Your task to perform on an android device: Show the shopping cart on walmart.com. Add "jbl charge 4" to the cart on walmart.com, then select checkout. Image 0: 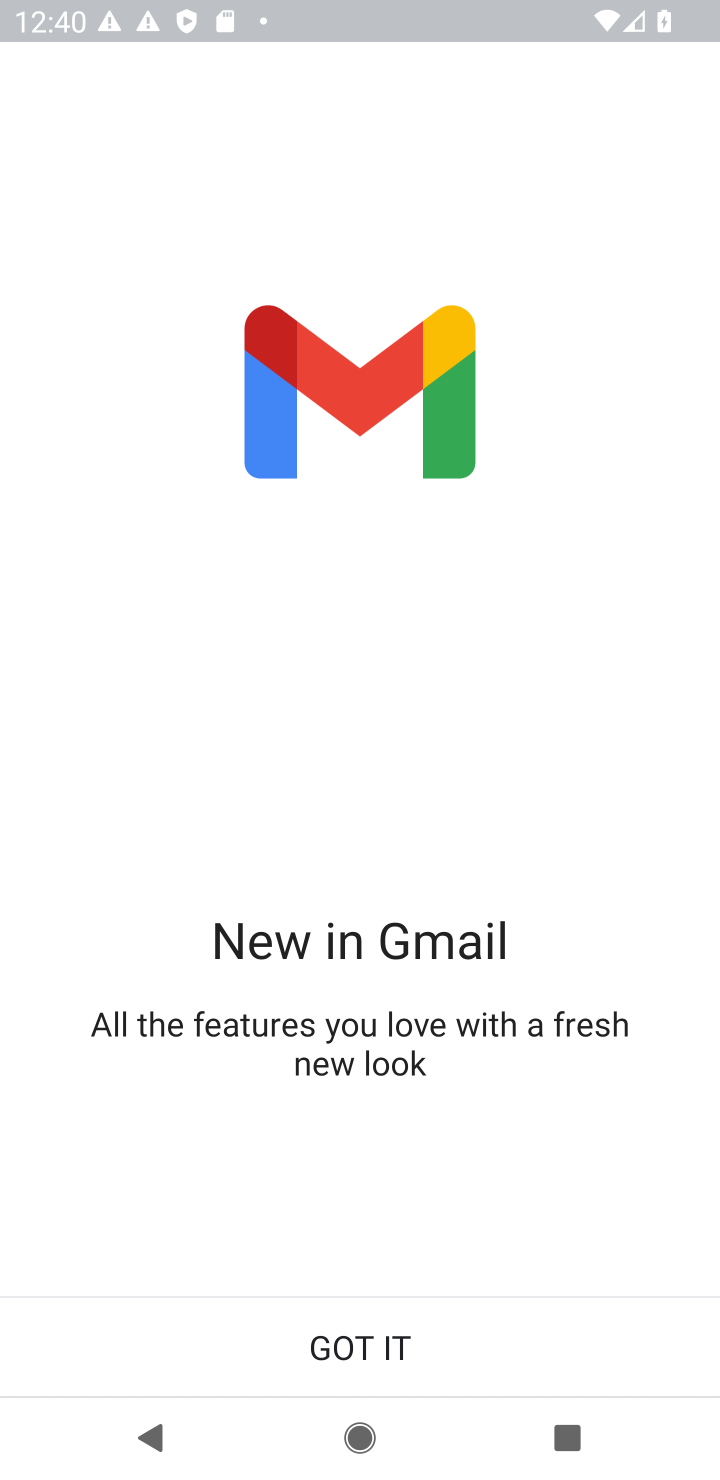
Step 0: press home button
Your task to perform on an android device: Show the shopping cart on walmart.com. Add "jbl charge 4" to the cart on walmart.com, then select checkout. Image 1: 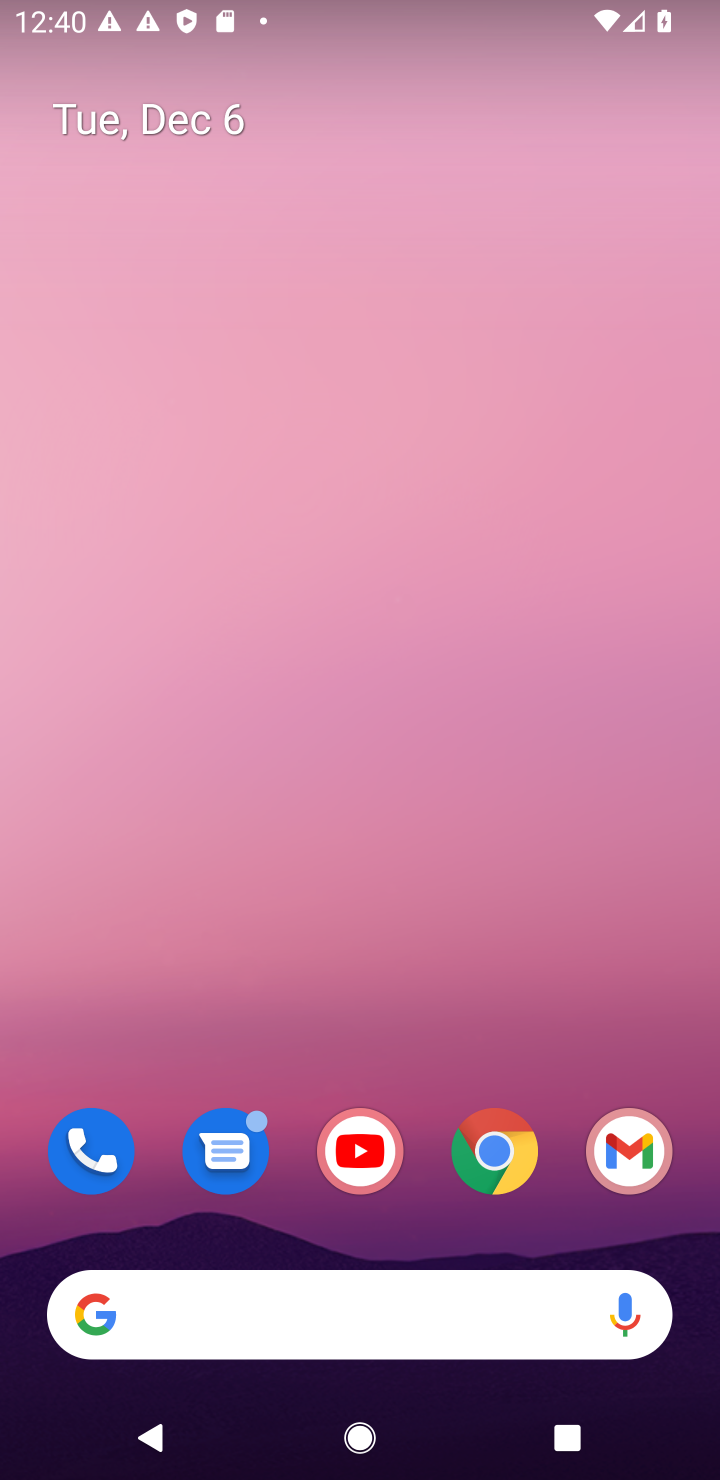
Step 1: click (494, 1160)
Your task to perform on an android device: Show the shopping cart on walmart.com. Add "jbl charge 4" to the cart on walmart.com, then select checkout. Image 2: 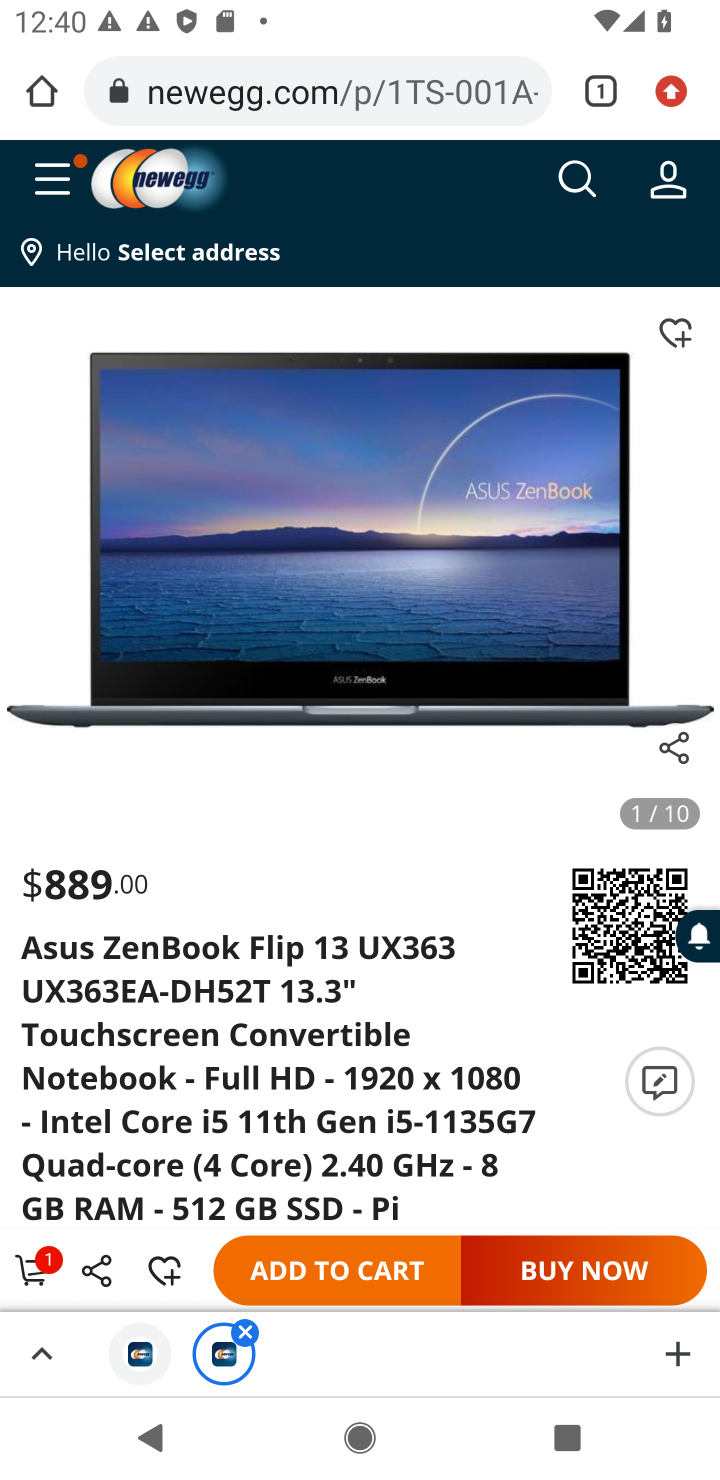
Step 2: click (330, 87)
Your task to perform on an android device: Show the shopping cart on walmart.com. Add "jbl charge 4" to the cart on walmart.com, then select checkout. Image 3: 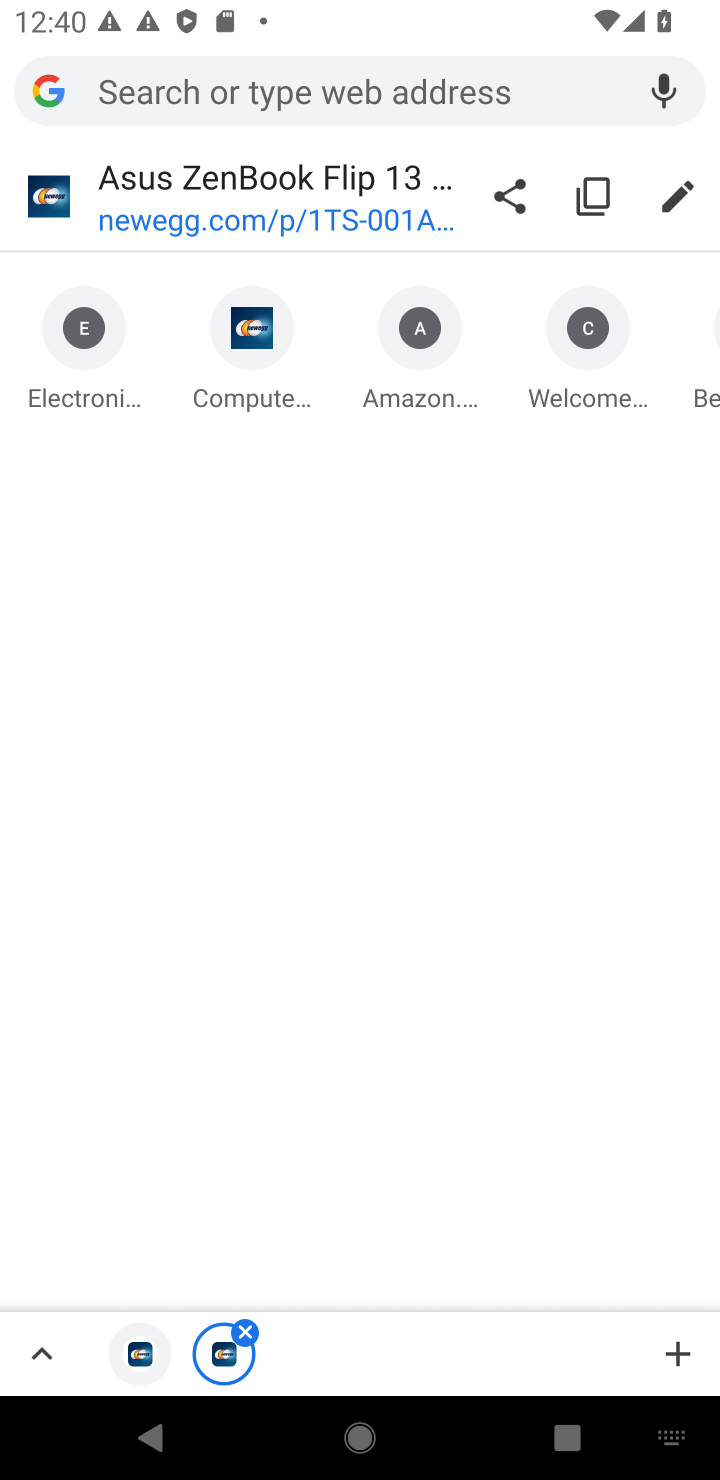
Step 3: type "walmart.com"
Your task to perform on an android device: Show the shopping cart on walmart.com. Add "jbl charge 4" to the cart on walmart.com, then select checkout. Image 4: 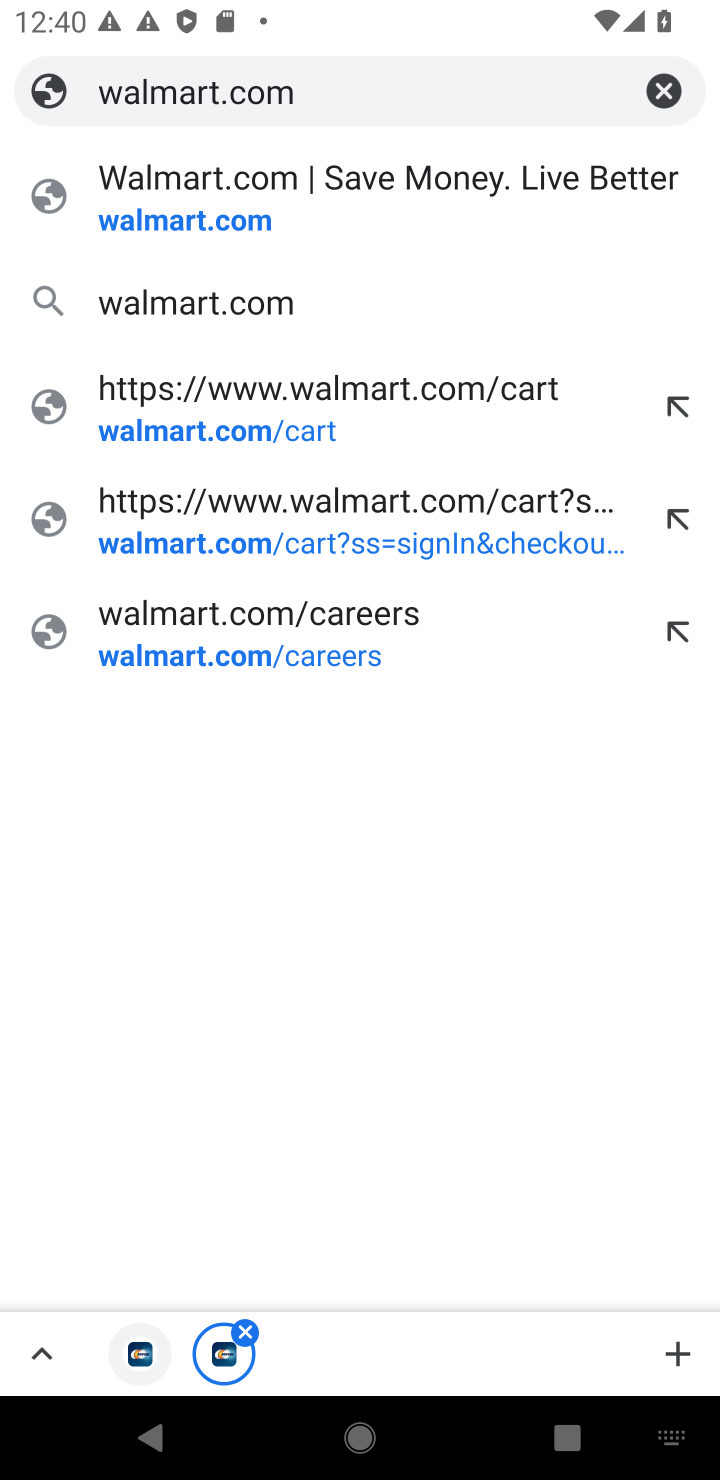
Step 4: click (178, 228)
Your task to perform on an android device: Show the shopping cart on walmart.com. Add "jbl charge 4" to the cart on walmart.com, then select checkout. Image 5: 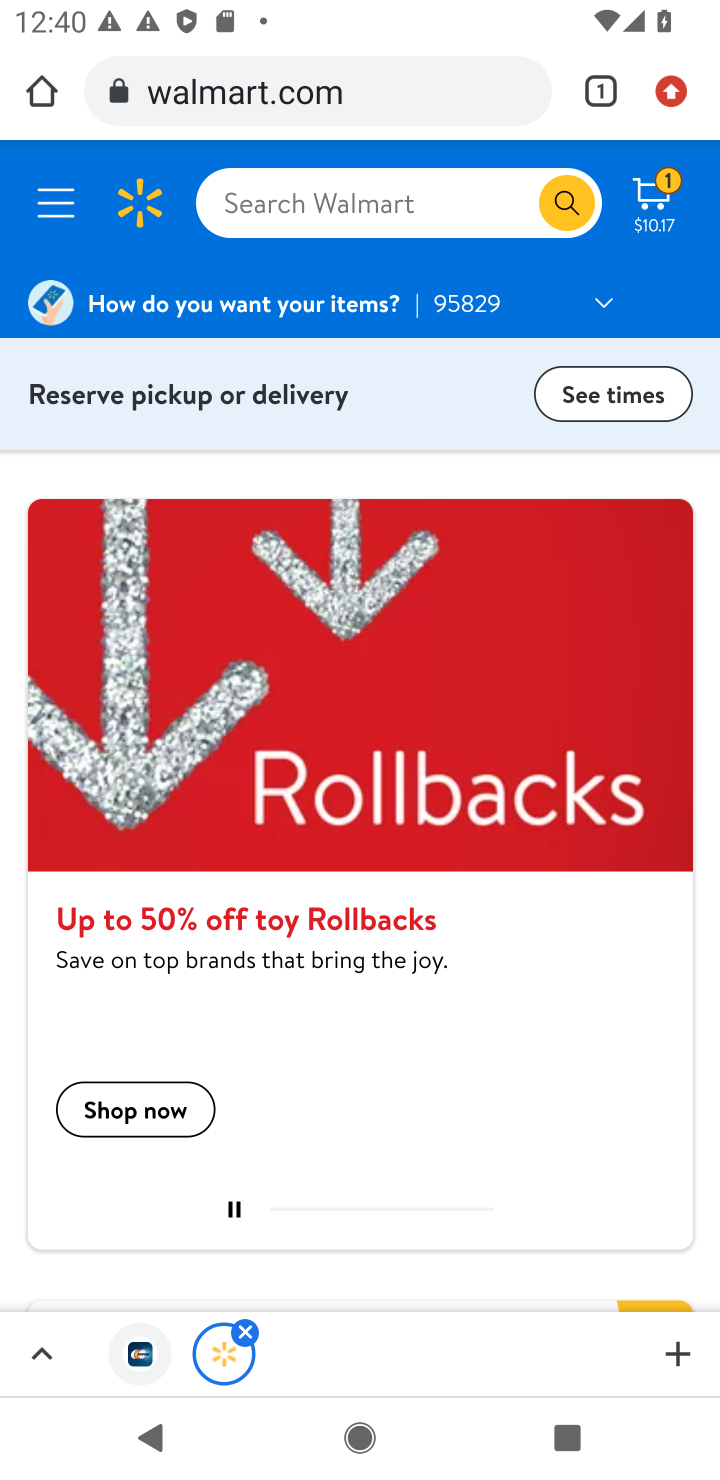
Step 5: click (643, 199)
Your task to perform on an android device: Show the shopping cart on walmart.com. Add "jbl charge 4" to the cart on walmart.com, then select checkout. Image 6: 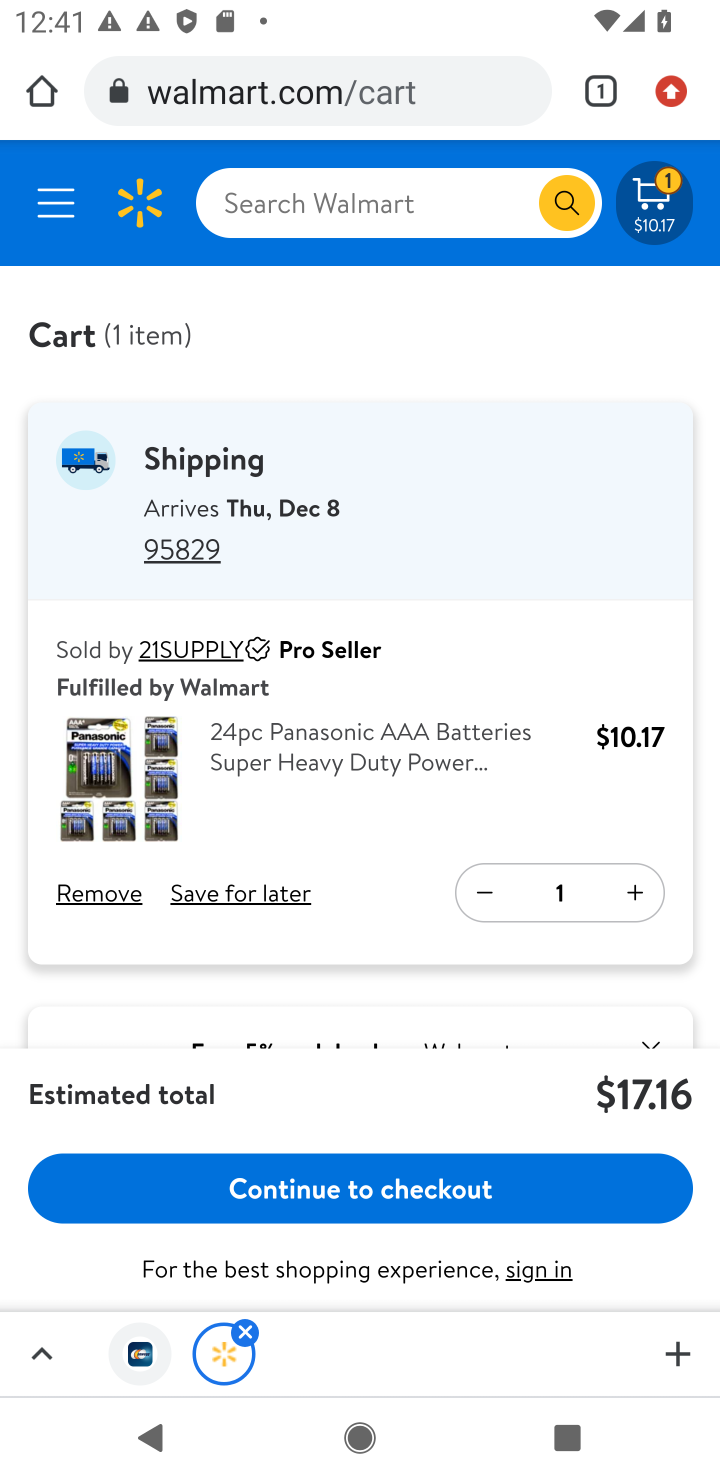
Step 6: click (301, 200)
Your task to perform on an android device: Show the shopping cart on walmart.com. Add "jbl charge 4" to the cart on walmart.com, then select checkout. Image 7: 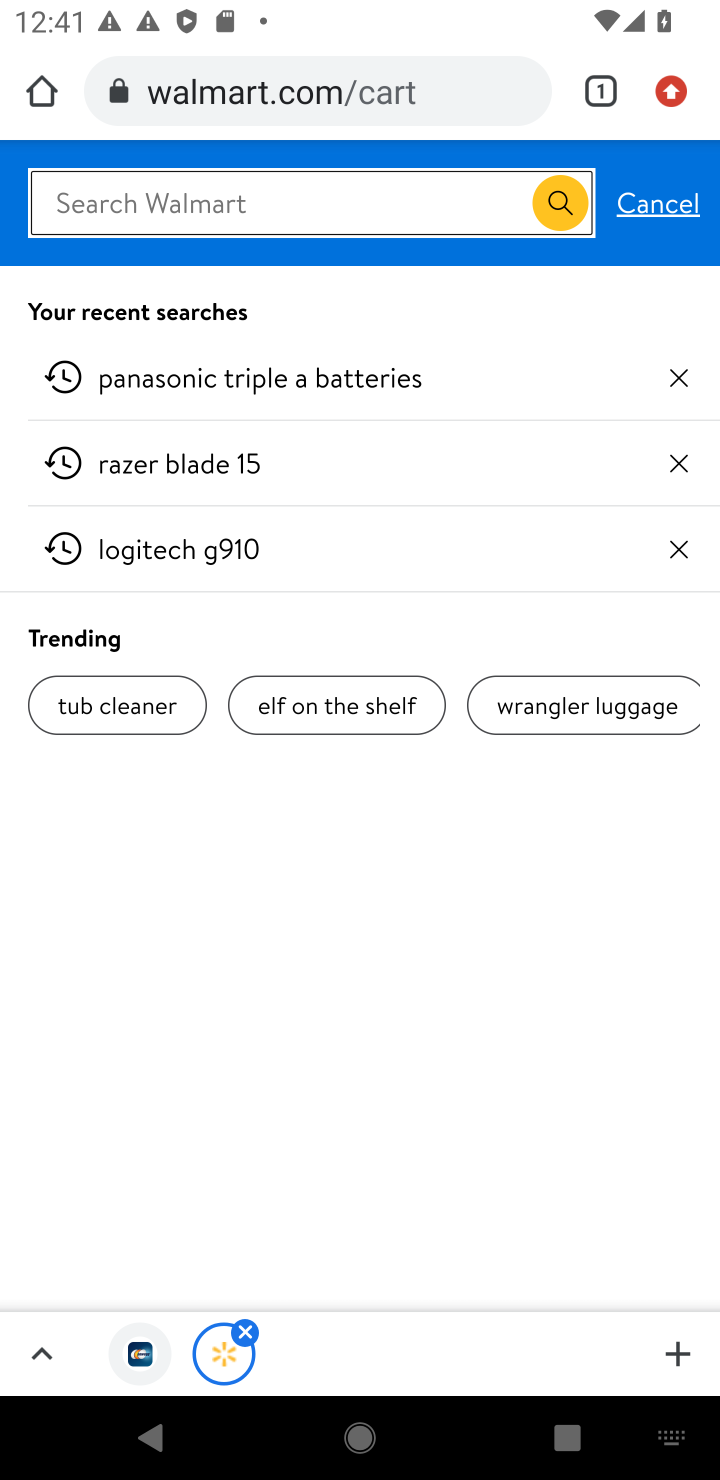
Step 7: type "jbl charge 4"
Your task to perform on an android device: Show the shopping cart on walmart.com. Add "jbl charge 4" to the cart on walmart.com, then select checkout. Image 8: 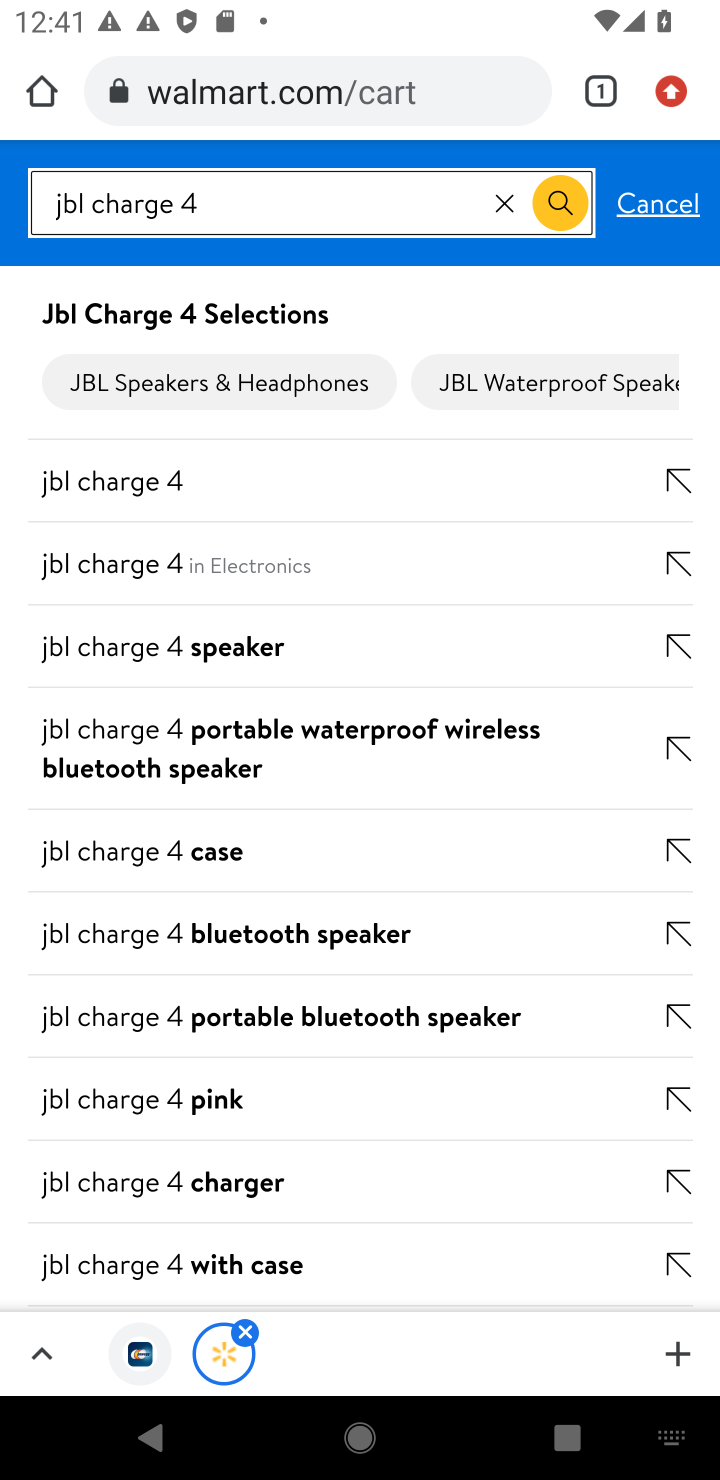
Step 8: click (124, 493)
Your task to perform on an android device: Show the shopping cart on walmart.com. Add "jbl charge 4" to the cart on walmart.com, then select checkout. Image 9: 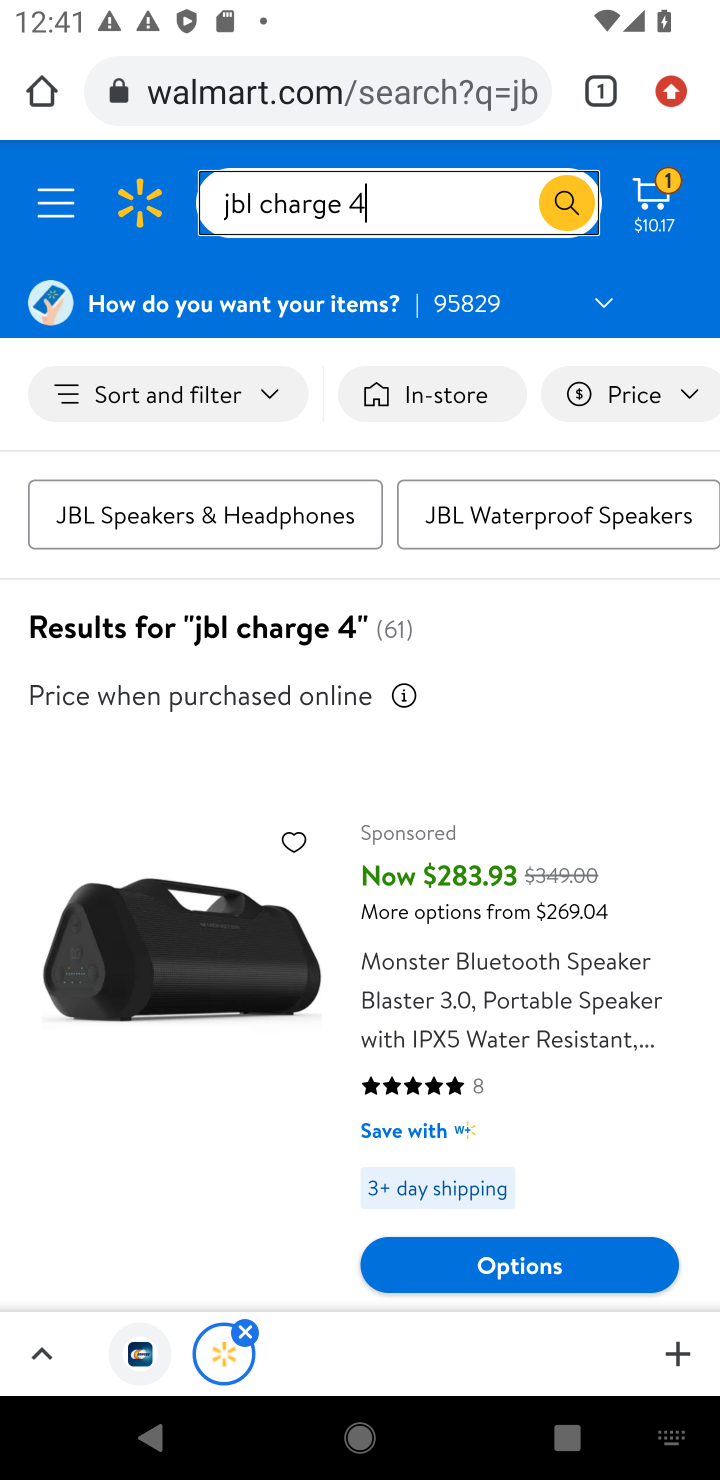
Step 9: drag from (267, 981) to (244, 534)
Your task to perform on an android device: Show the shopping cart on walmart.com. Add "jbl charge 4" to the cart on walmart.com, then select checkout. Image 10: 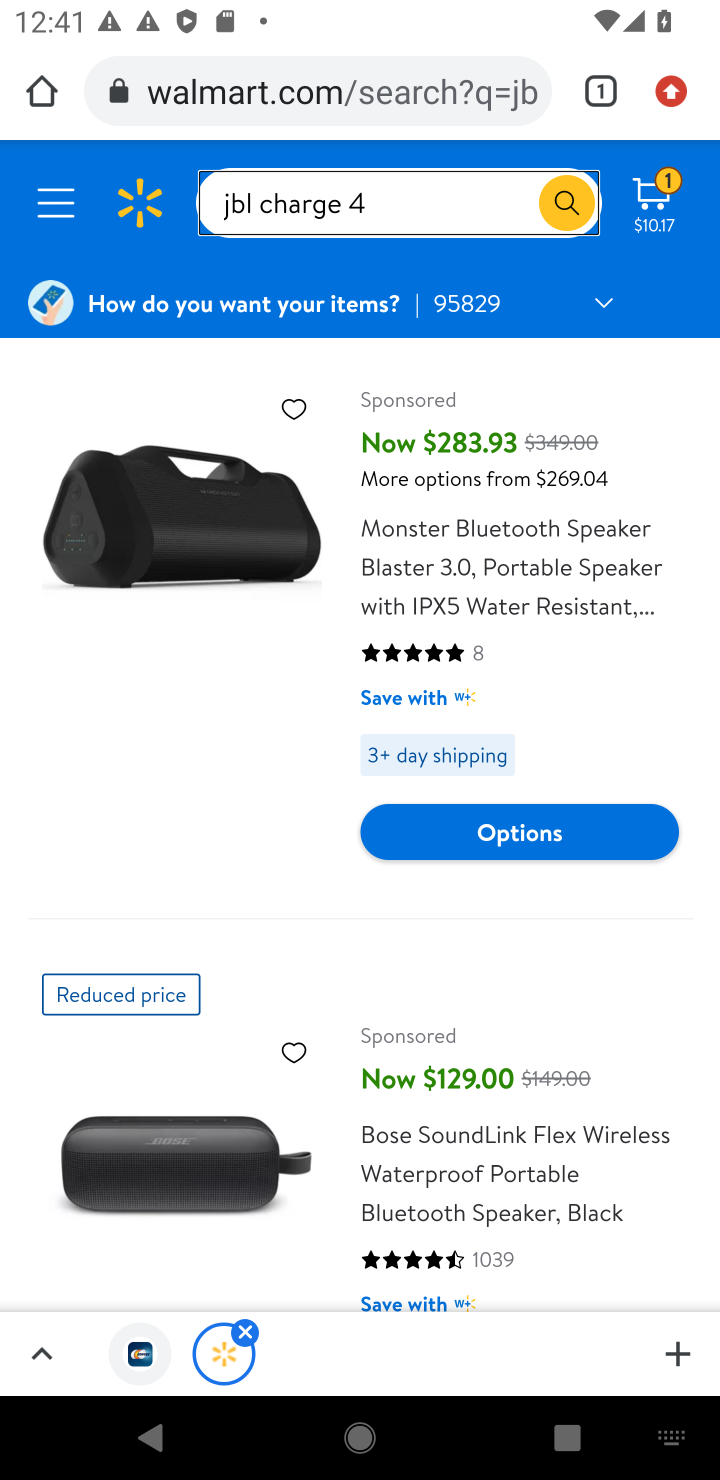
Step 10: drag from (240, 1142) to (235, 508)
Your task to perform on an android device: Show the shopping cart on walmart.com. Add "jbl charge 4" to the cart on walmart.com, then select checkout. Image 11: 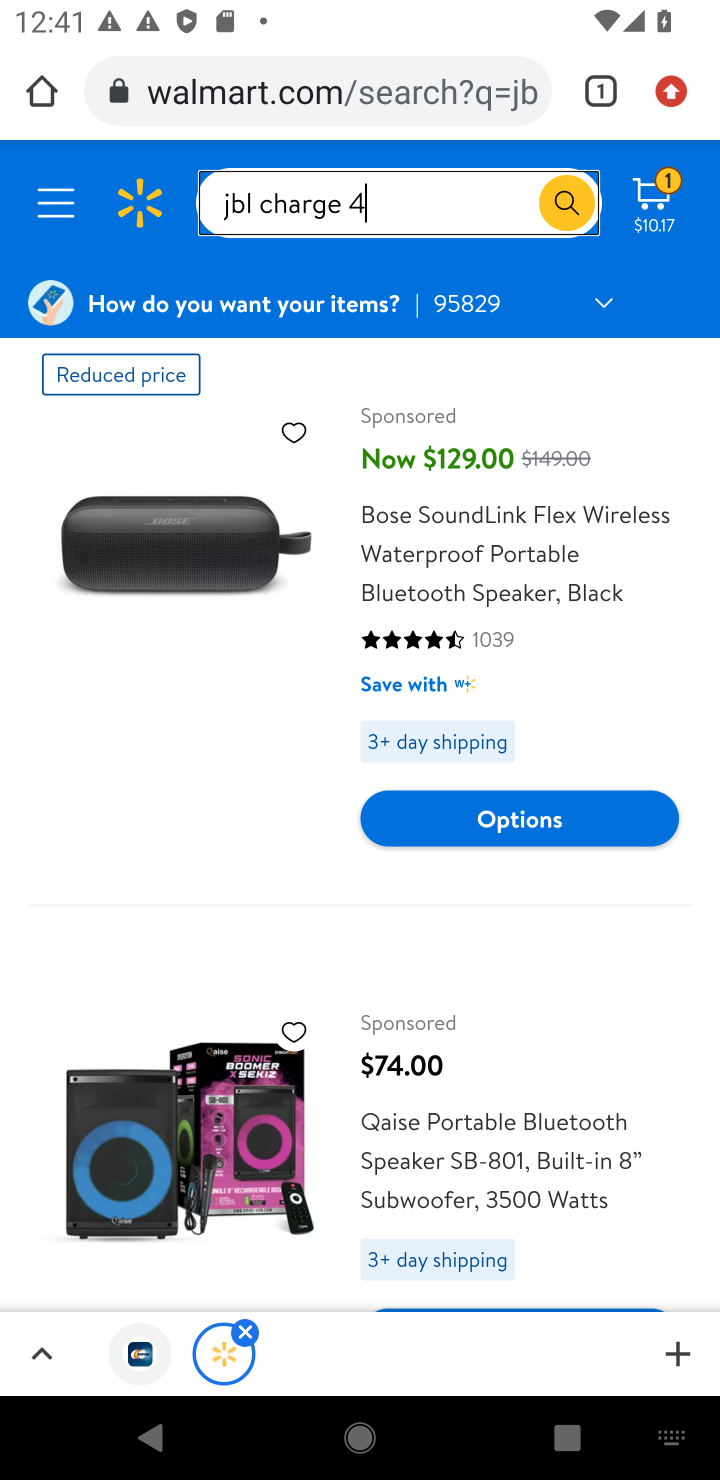
Step 11: drag from (226, 1107) to (206, 496)
Your task to perform on an android device: Show the shopping cart on walmart.com. Add "jbl charge 4" to the cart on walmart.com, then select checkout. Image 12: 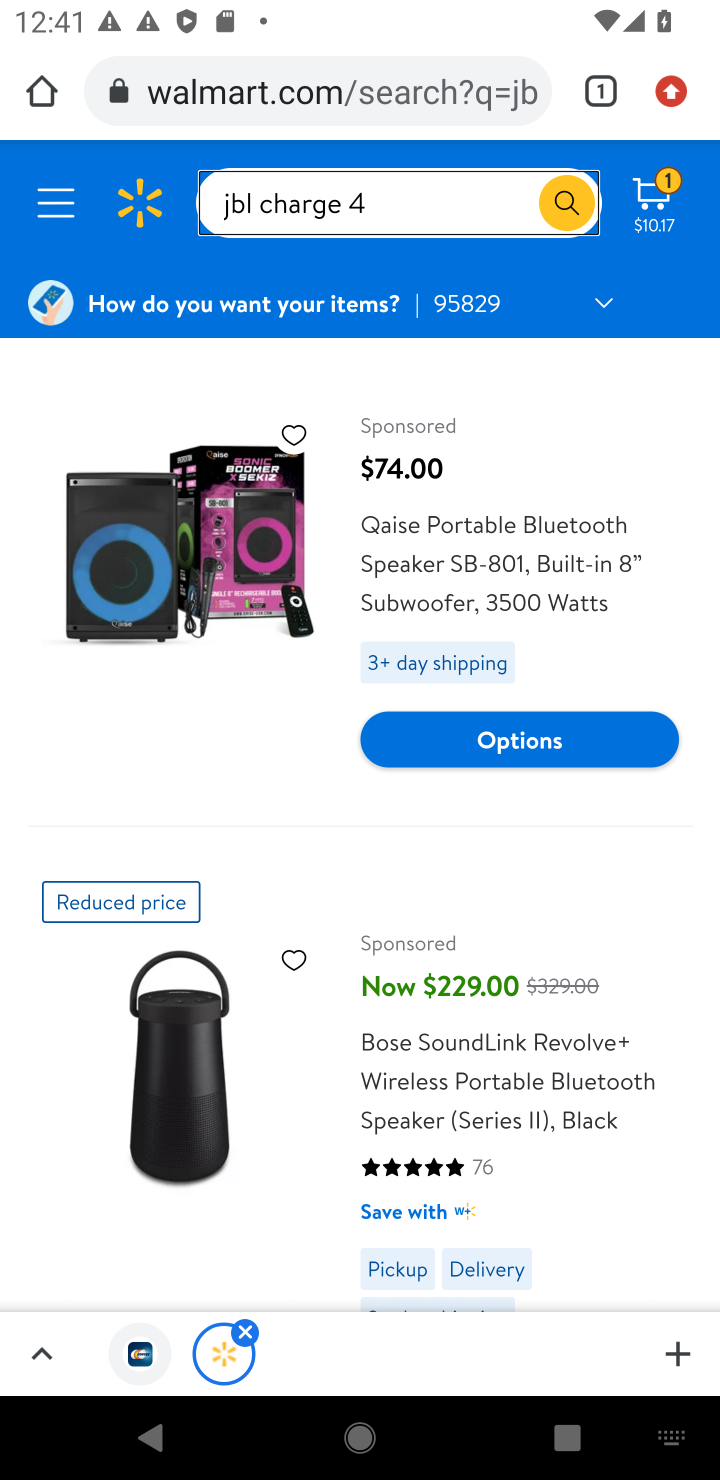
Step 12: drag from (212, 978) to (201, 567)
Your task to perform on an android device: Show the shopping cart on walmart.com. Add "jbl charge 4" to the cart on walmart.com, then select checkout. Image 13: 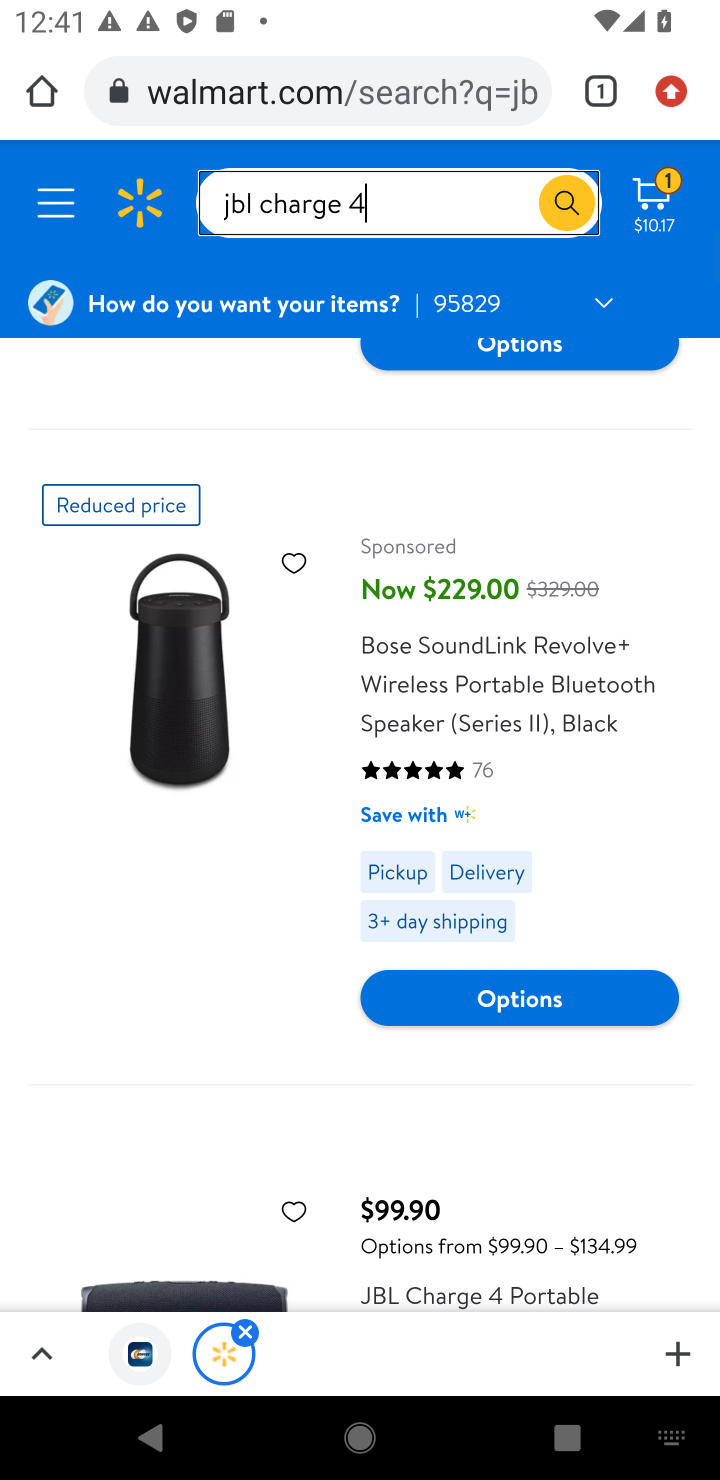
Step 13: drag from (261, 955) to (217, 566)
Your task to perform on an android device: Show the shopping cart on walmart.com. Add "jbl charge 4" to the cart on walmart.com, then select checkout. Image 14: 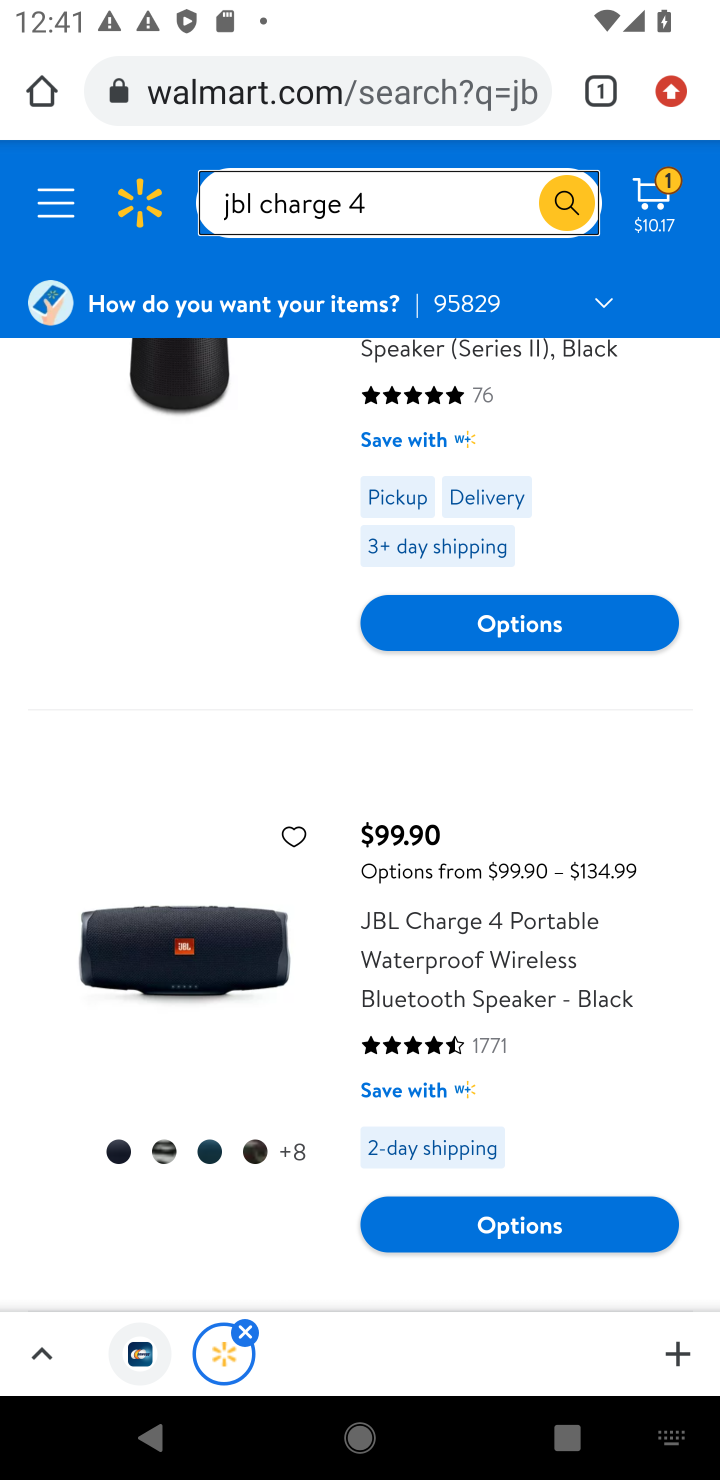
Step 14: click (412, 995)
Your task to perform on an android device: Show the shopping cart on walmart.com. Add "jbl charge 4" to the cart on walmart.com, then select checkout. Image 15: 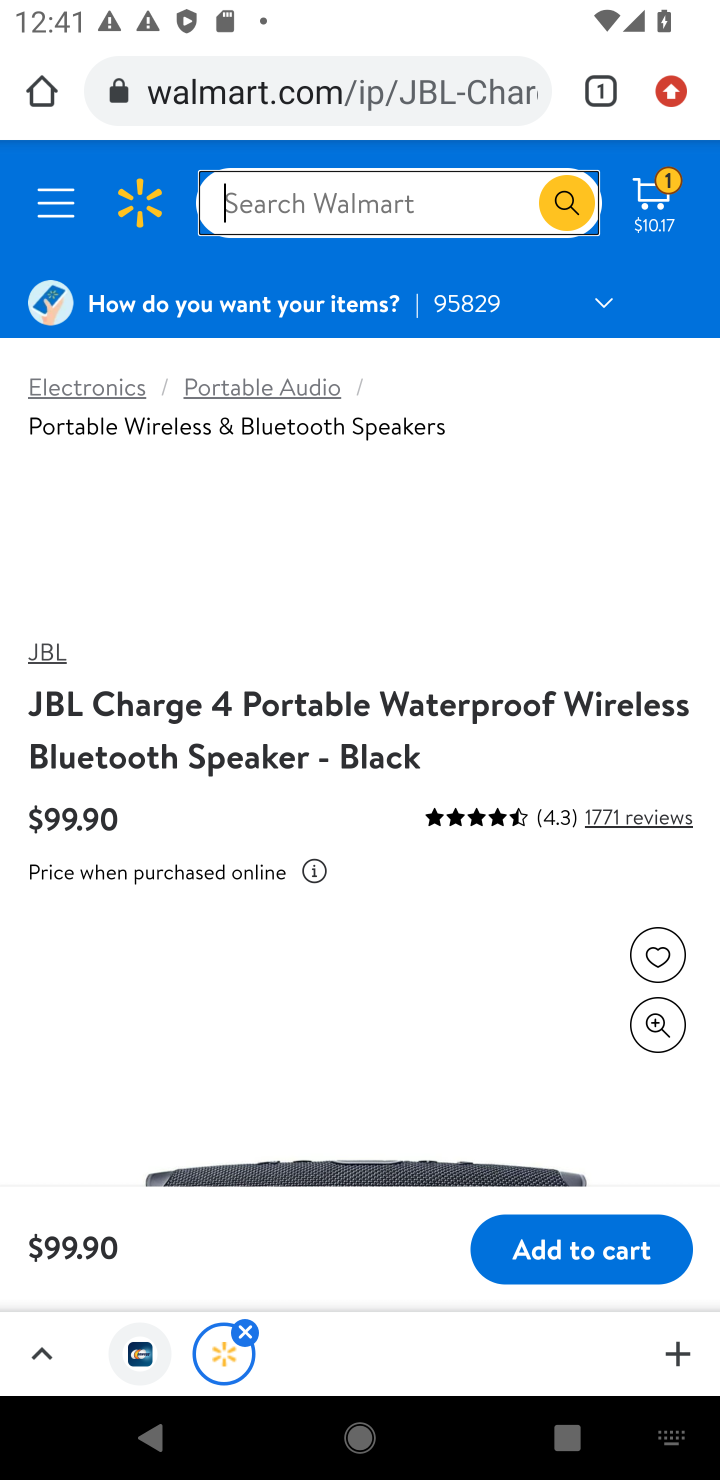
Step 15: click (514, 1252)
Your task to perform on an android device: Show the shopping cart on walmart.com. Add "jbl charge 4" to the cart on walmart.com, then select checkout. Image 16: 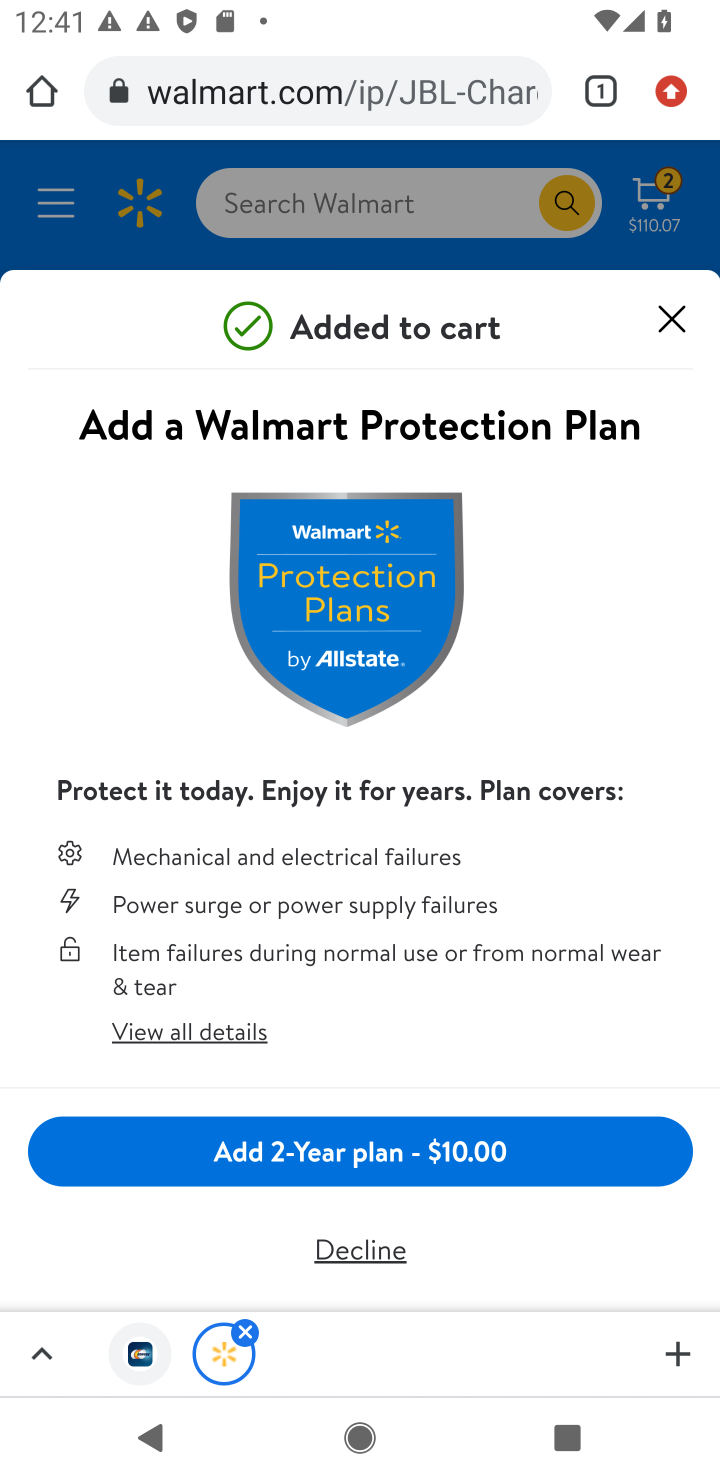
Step 16: click (667, 335)
Your task to perform on an android device: Show the shopping cart on walmart.com. Add "jbl charge 4" to the cart on walmart.com, then select checkout. Image 17: 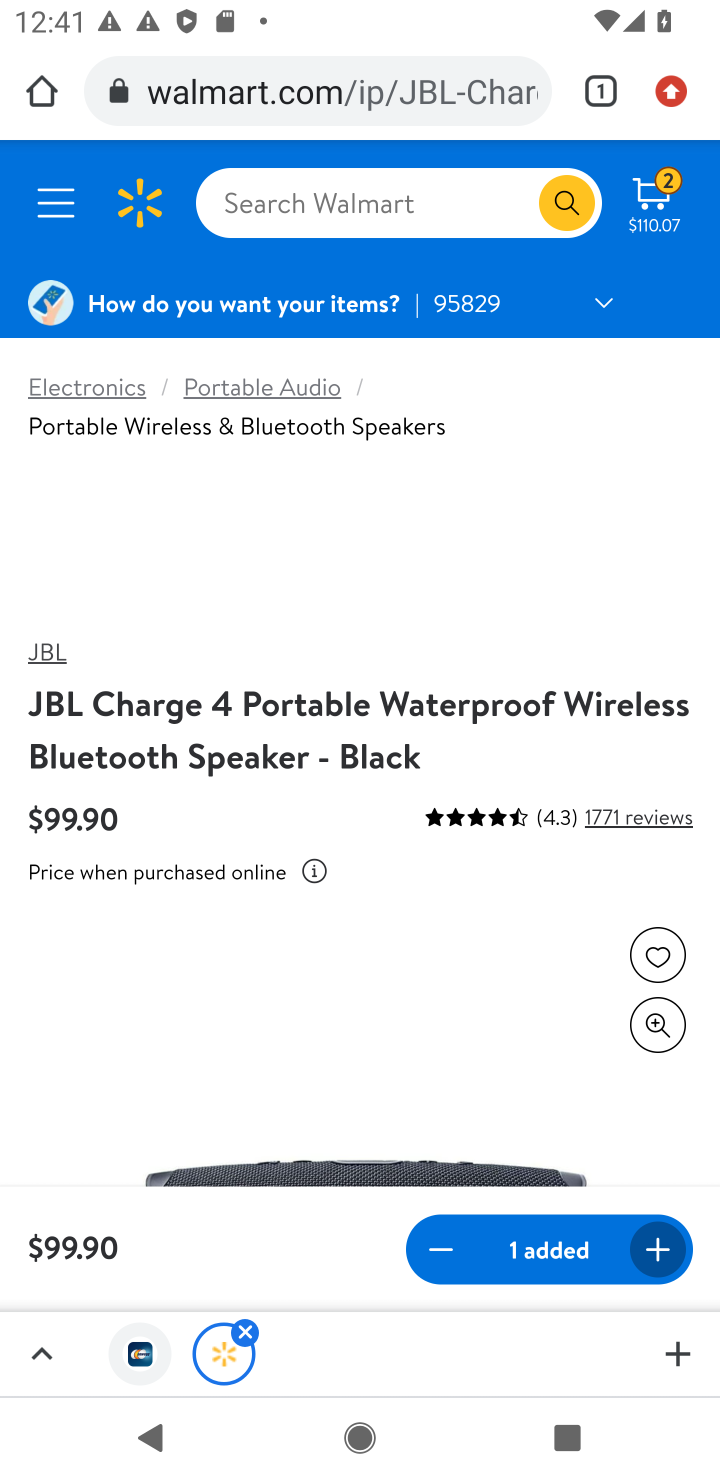
Step 17: click (663, 200)
Your task to perform on an android device: Show the shopping cart on walmart.com. Add "jbl charge 4" to the cart on walmart.com, then select checkout. Image 18: 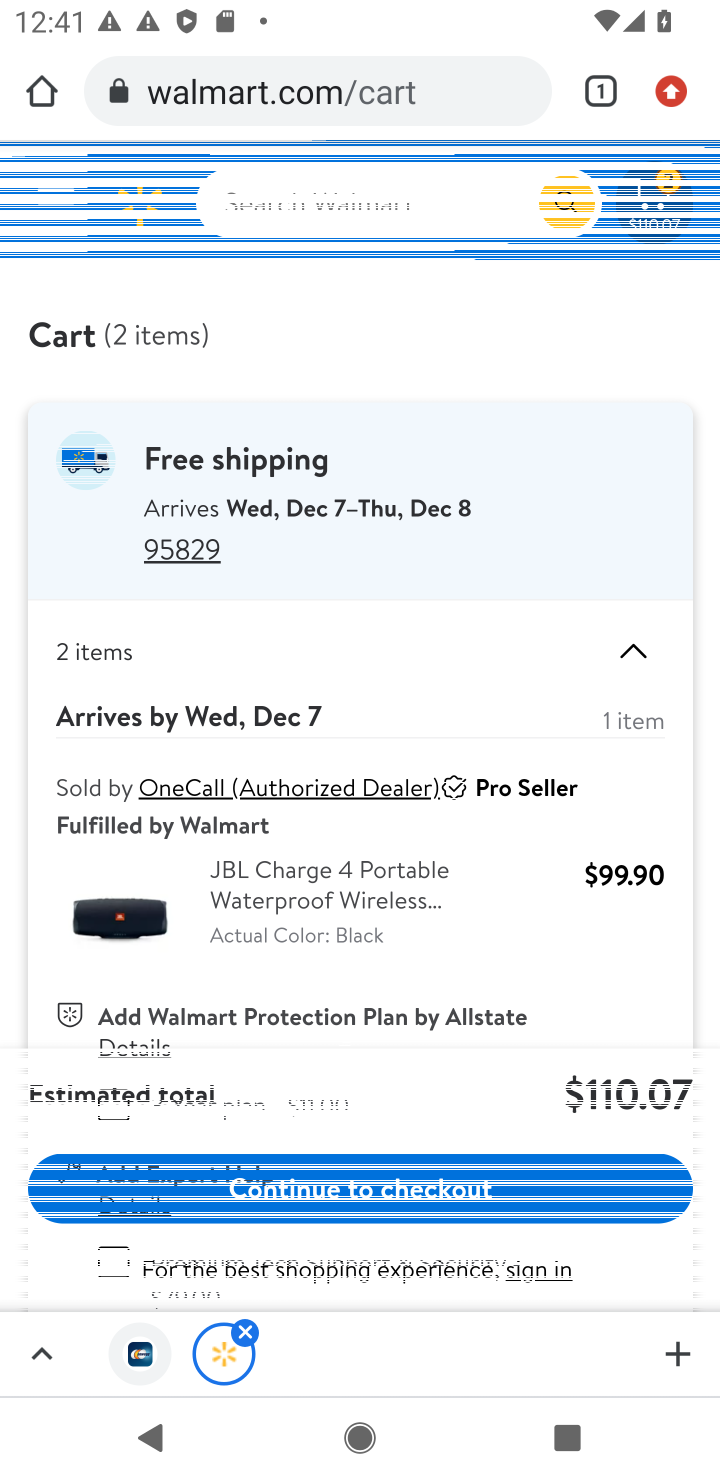
Step 18: click (341, 1195)
Your task to perform on an android device: Show the shopping cart on walmart.com. Add "jbl charge 4" to the cart on walmart.com, then select checkout. Image 19: 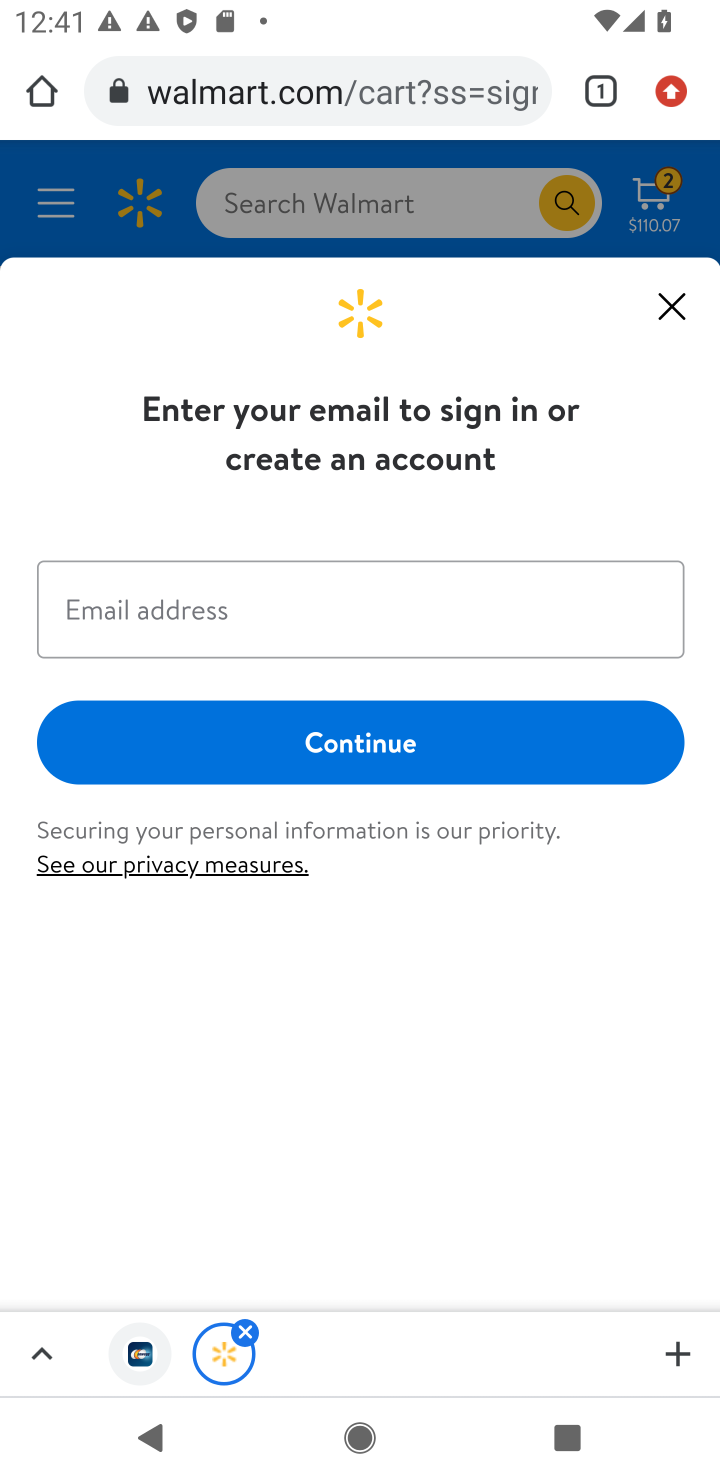
Step 19: task complete